Your task to perform on an android device: set the stopwatch Image 0: 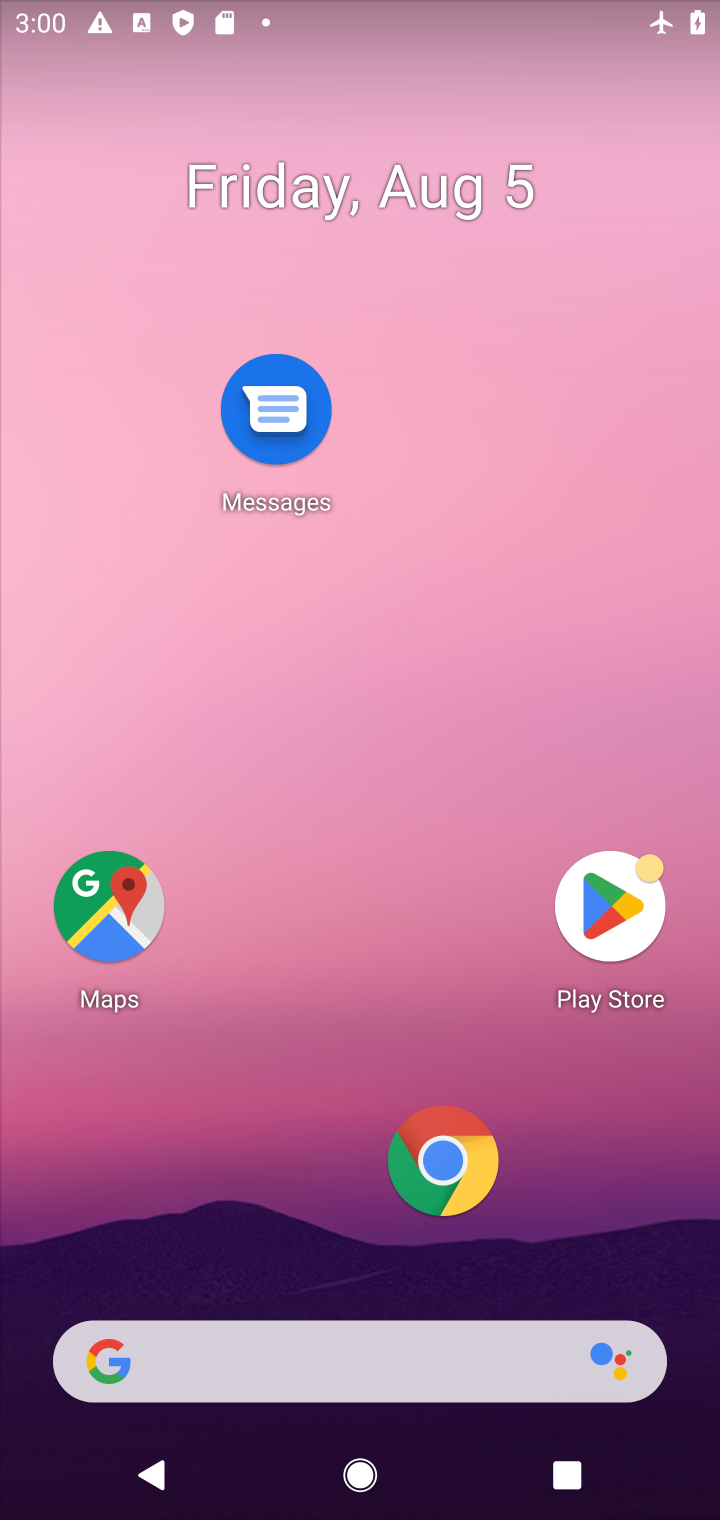
Step 0: drag from (333, 1234) to (461, 208)
Your task to perform on an android device: set the stopwatch Image 1: 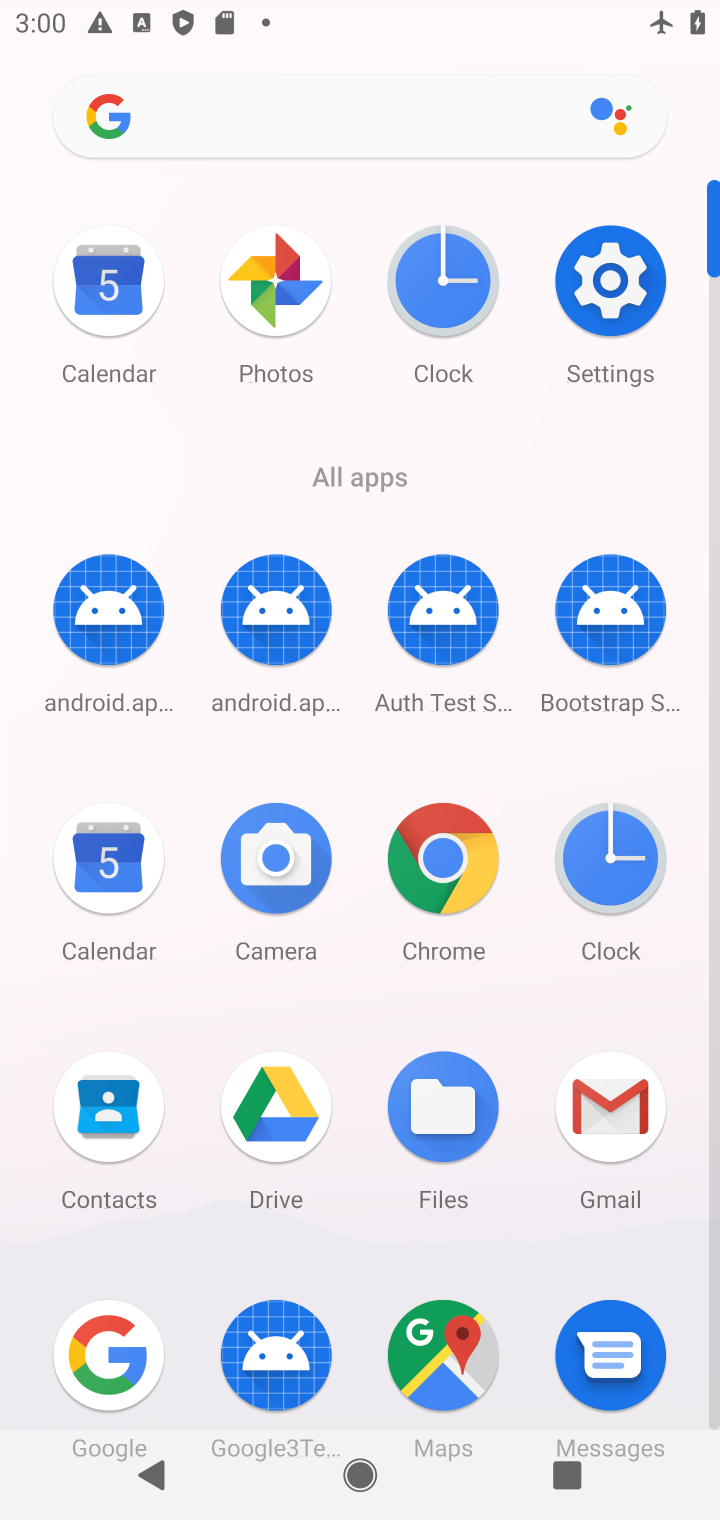
Step 1: click (445, 282)
Your task to perform on an android device: set the stopwatch Image 2: 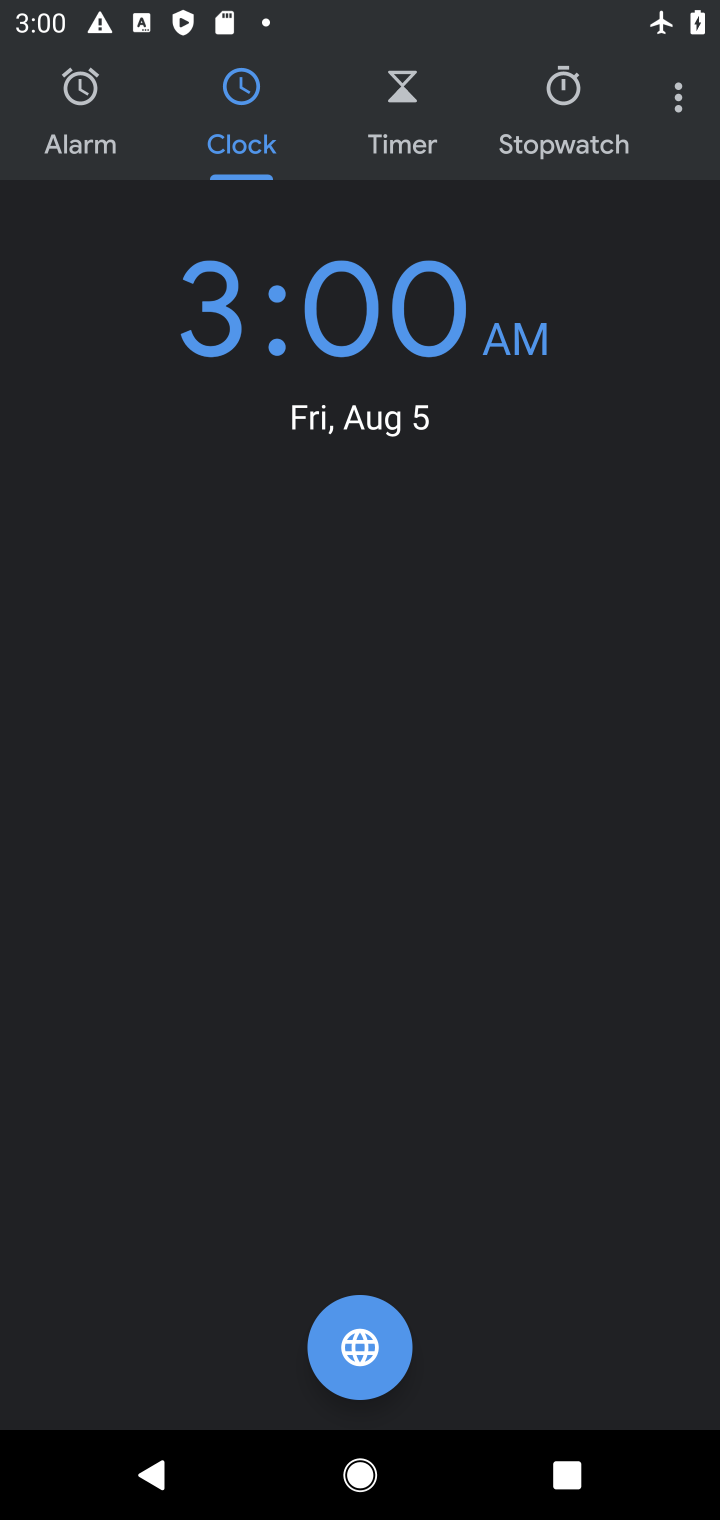
Step 2: click (578, 131)
Your task to perform on an android device: set the stopwatch Image 3: 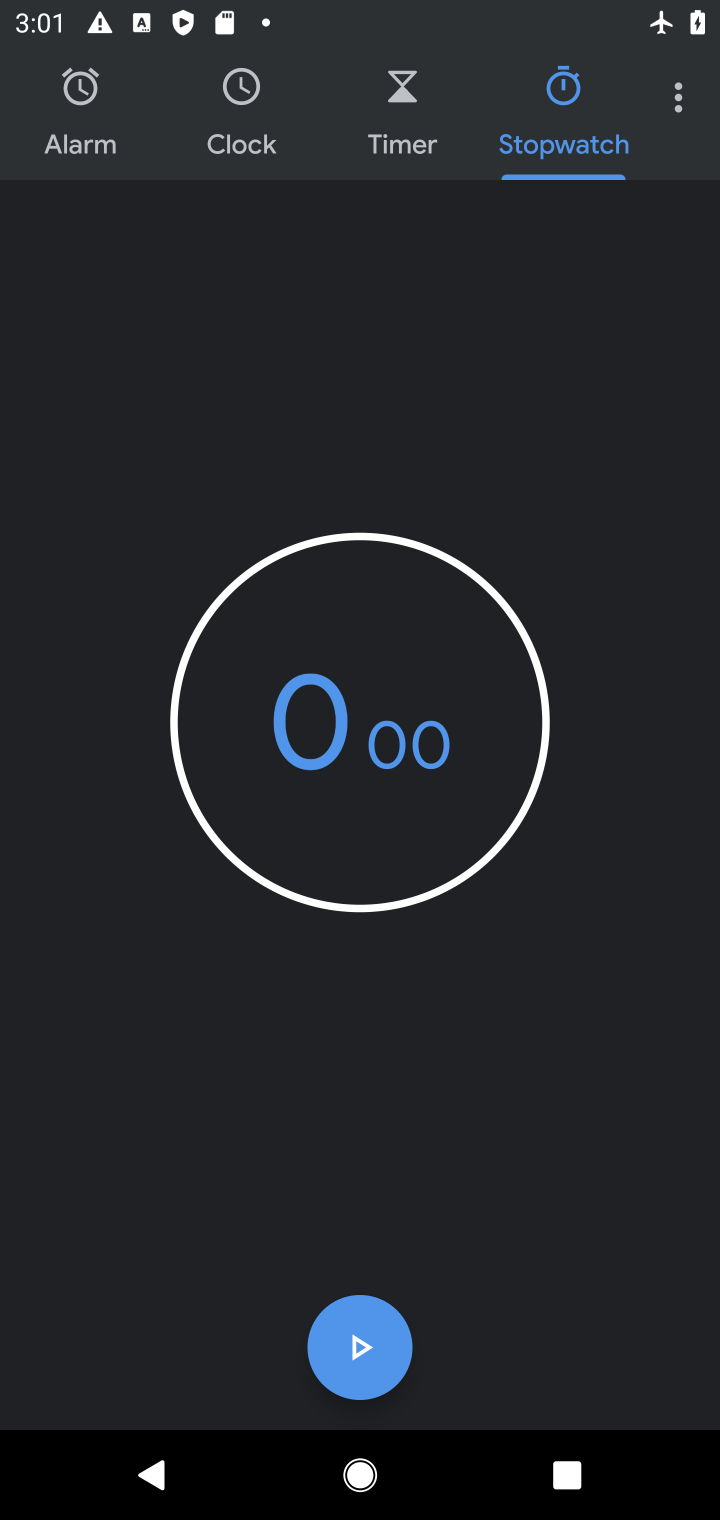
Step 3: task complete